Your task to perform on an android device: turn notification dots on Image 0: 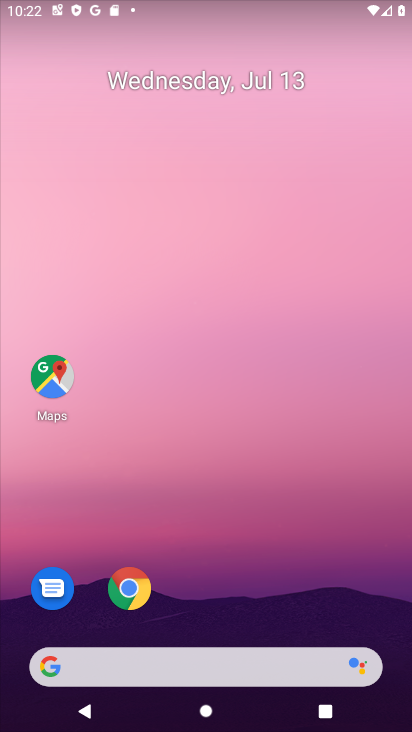
Step 0: drag from (189, 608) to (232, 47)
Your task to perform on an android device: turn notification dots on Image 1: 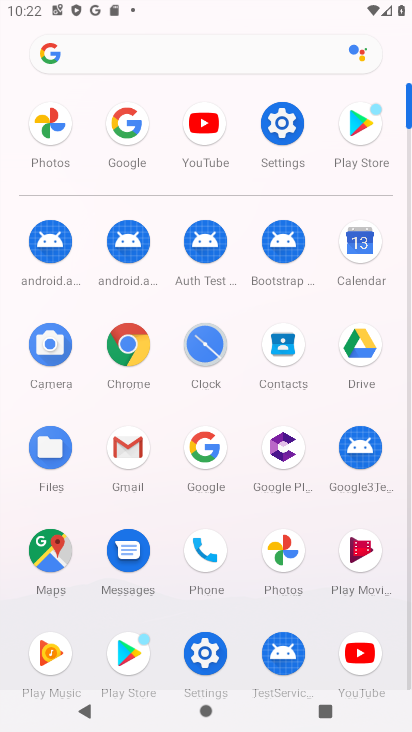
Step 1: click (285, 124)
Your task to perform on an android device: turn notification dots on Image 2: 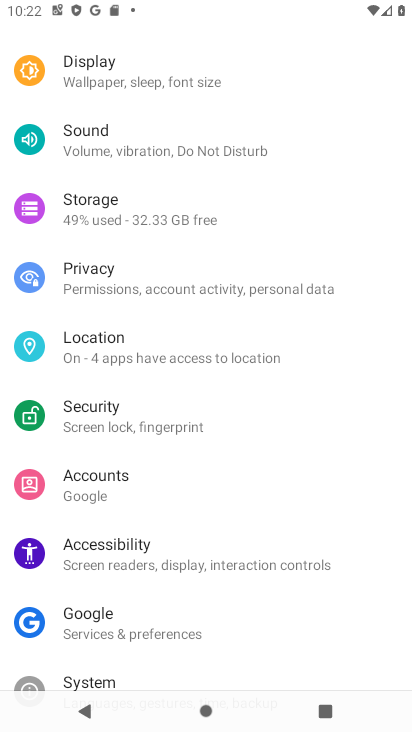
Step 2: drag from (131, 133) to (253, 490)
Your task to perform on an android device: turn notification dots on Image 3: 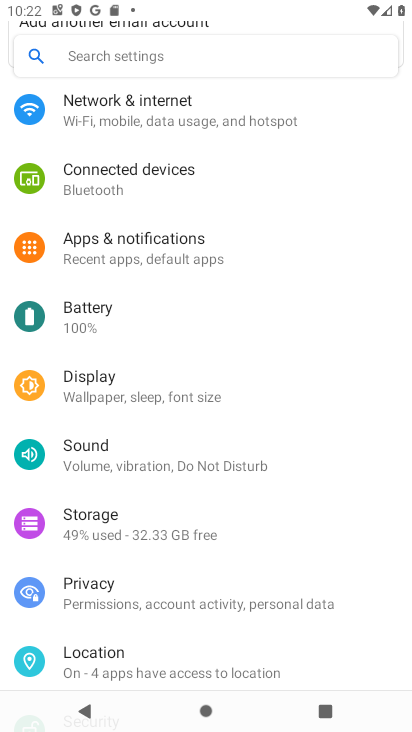
Step 3: click (165, 243)
Your task to perform on an android device: turn notification dots on Image 4: 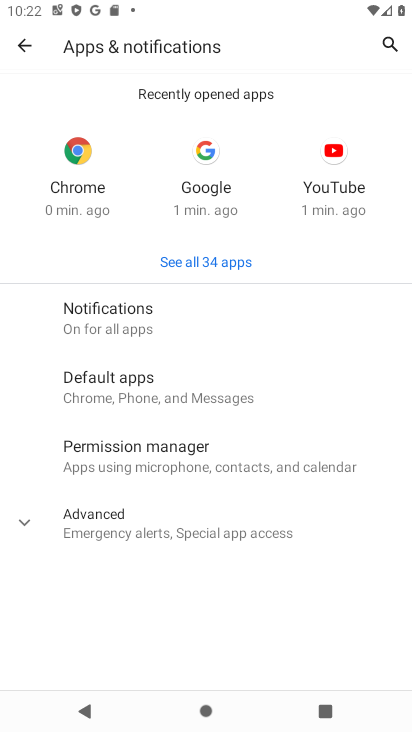
Step 4: click (103, 323)
Your task to perform on an android device: turn notification dots on Image 5: 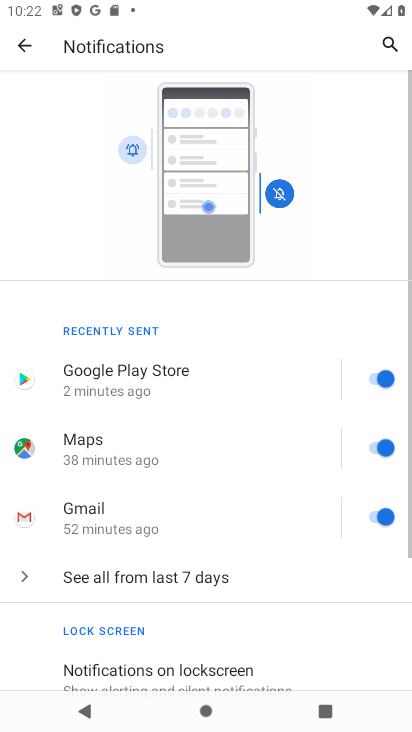
Step 5: drag from (224, 571) to (258, 239)
Your task to perform on an android device: turn notification dots on Image 6: 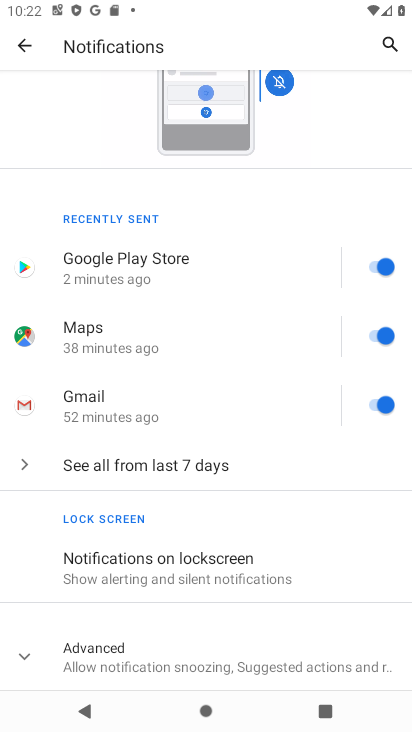
Step 6: click (114, 666)
Your task to perform on an android device: turn notification dots on Image 7: 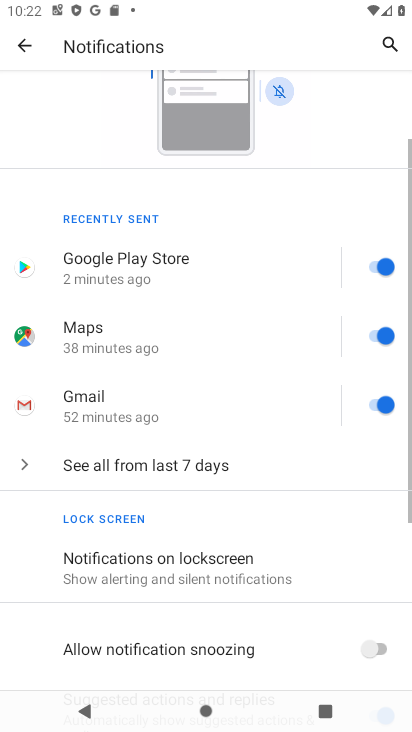
Step 7: task complete